Your task to perform on an android device: Search for Italian restaurants on Maps Image 0: 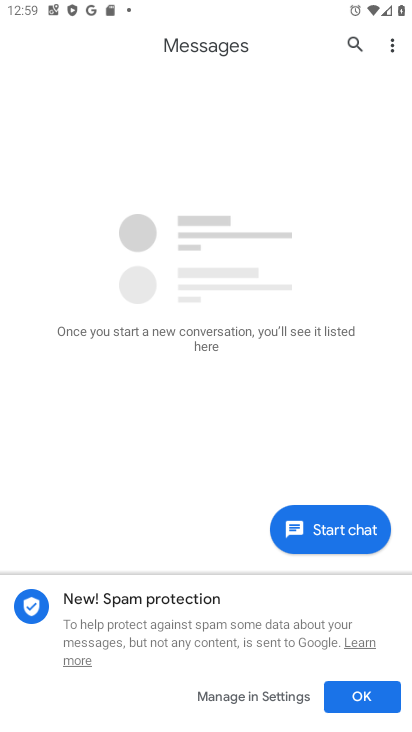
Step 0: press home button
Your task to perform on an android device: Search for Italian restaurants on Maps Image 1: 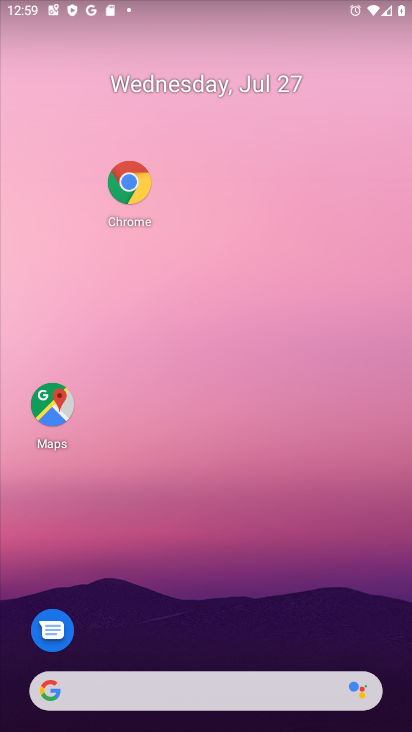
Step 1: click (27, 403)
Your task to perform on an android device: Search for Italian restaurants on Maps Image 2: 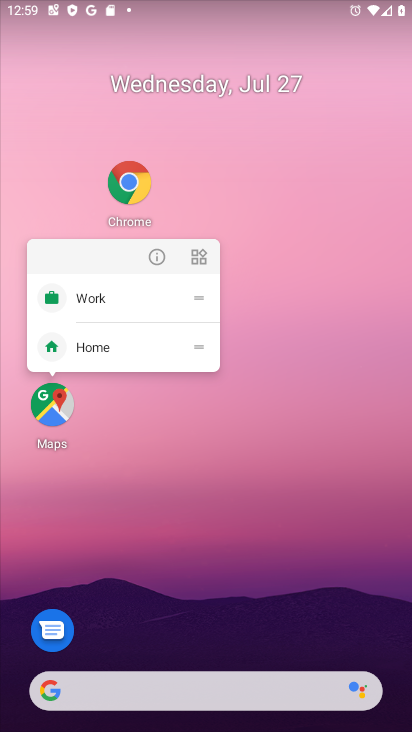
Step 2: click (27, 403)
Your task to perform on an android device: Search for Italian restaurants on Maps Image 3: 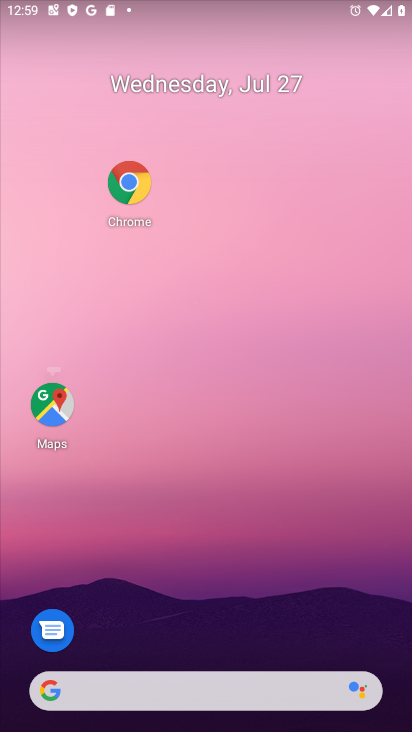
Step 3: click (27, 403)
Your task to perform on an android device: Search for Italian restaurants on Maps Image 4: 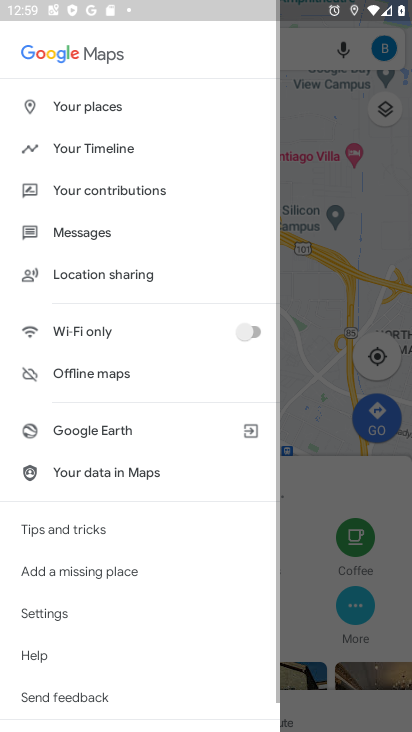
Step 4: click (336, 182)
Your task to perform on an android device: Search for Italian restaurants on Maps Image 5: 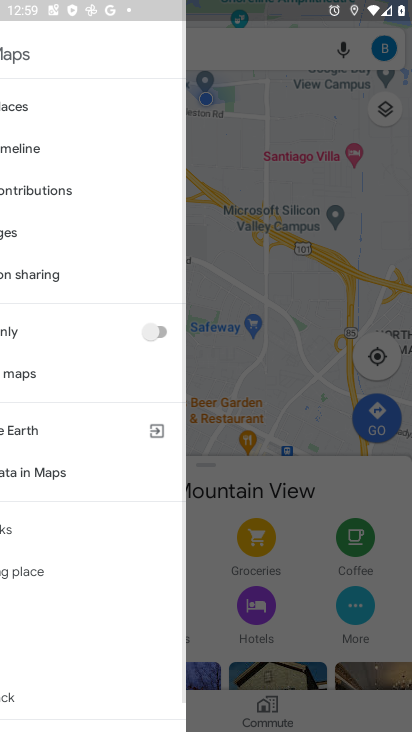
Step 5: click (304, 45)
Your task to perform on an android device: Search for Italian restaurants on Maps Image 6: 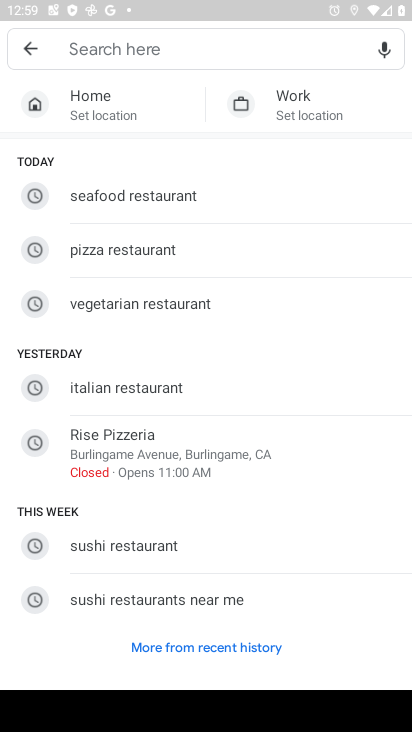
Step 6: click (210, 386)
Your task to perform on an android device: Search for Italian restaurants on Maps Image 7: 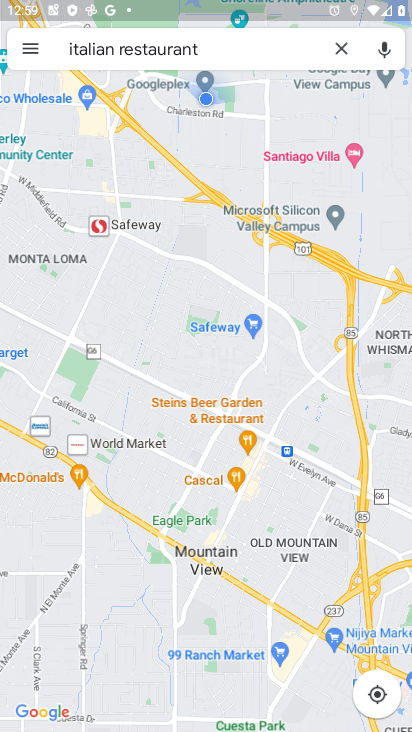
Step 7: click (312, 47)
Your task to perform on an android device: Search for Italian restaurants on Maps Image 8: 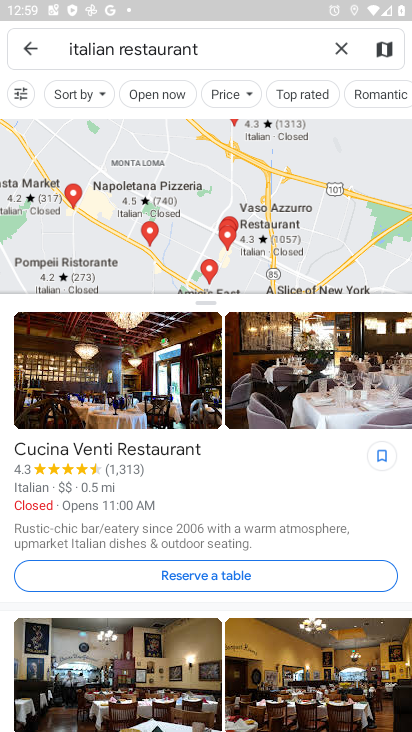
Step 8: task complete